Your task to perform on an android device: open a bookmark in the chrome app Image 0: 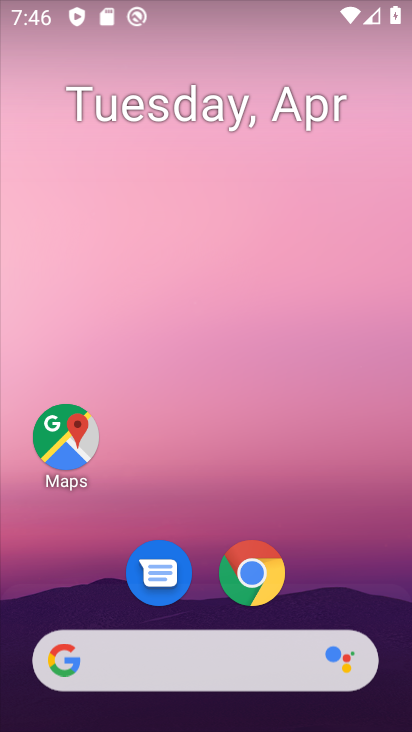
Step 0: click (269, 558)
Your task to perform on an android device: open a bookmark in the chrome app Image 1: 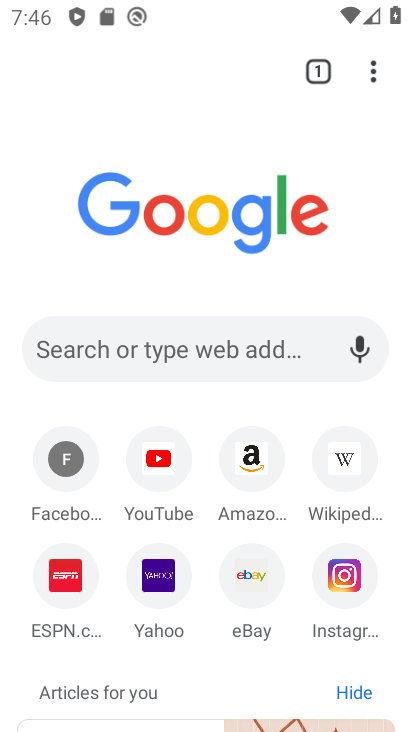
Step 1: click (379, 76)
Your task to perform on an android device: open a bookmark in the chrome app Image 2: 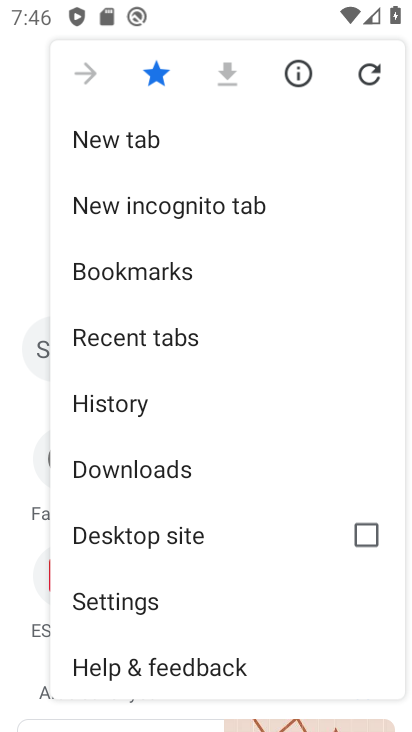
Step 2: click (169, 280)
Your task to perform on an android device: open a bookmark in the chrome app Image 3: 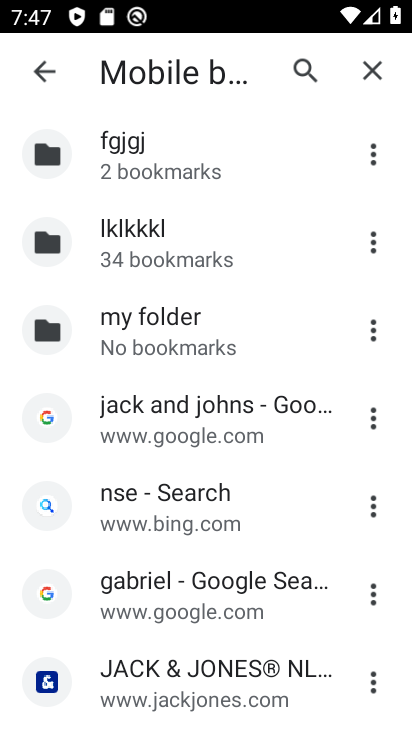
Step 3: click (190, 426)
Your task to perform on an android device: open a bookmark in the chrome app Image 4: 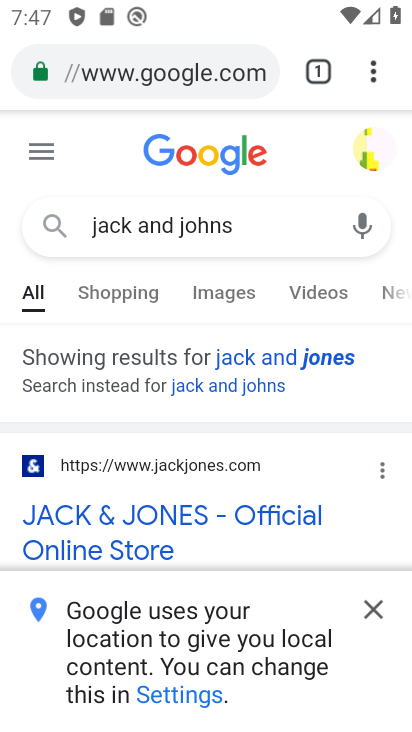
Step 4: task complete